Your task to perform on an android device: move a message to another label in the gmail app Image 0: 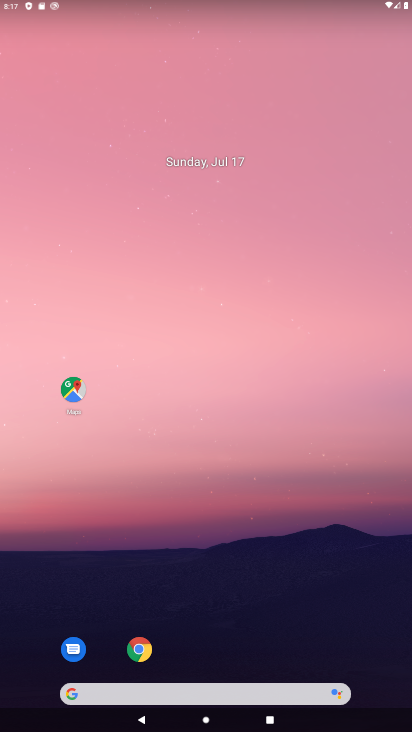
Step 0: drag from (209, 662) to (231, 217)
Your task to perform on an android device: move a message to another label in the gmail app Image 1: 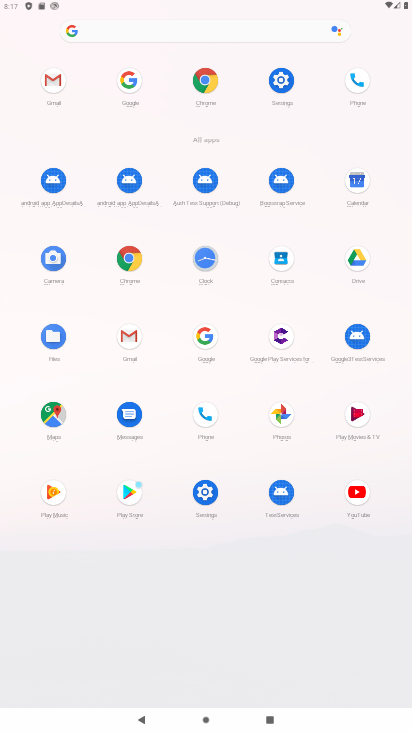
Step 1: click (128, 336)
Your task to perform on an android device: move a message to another label in the gmail app Image 2: 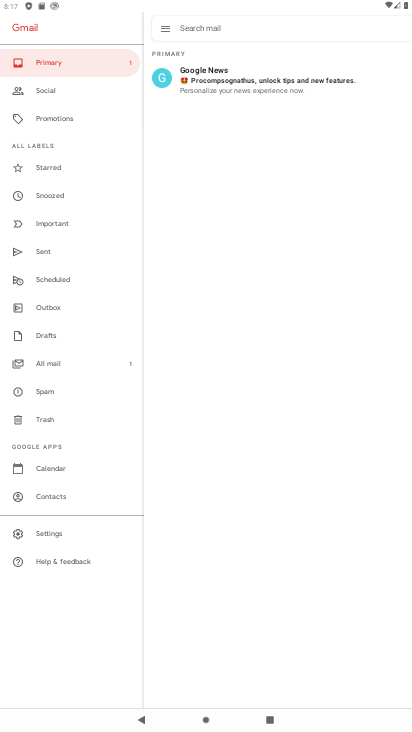
Step 2: click (220, 79)
Your task to perform on an android device: move a message to another label in the gmail app Image 3: 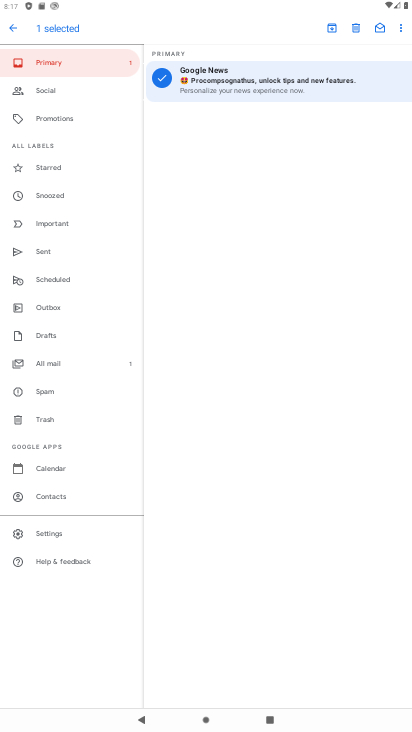
Step 3: click (400, 29)
Your task to perform on an android device: move a message to another label in the gmail app Image 4: 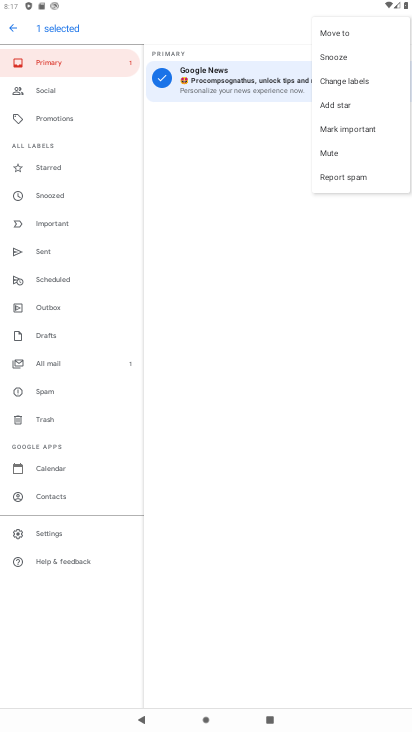
Step 4: click (353, 79)
Your task to perform on an android device: move a message to another label in the gmail app Image 5: 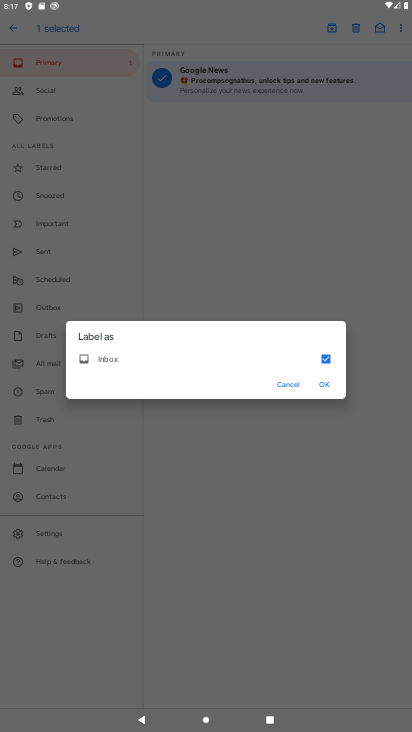
Step 5: click (325, 363)
Your task to perform on an android device: move a message to another label in the gmail app Image 6: 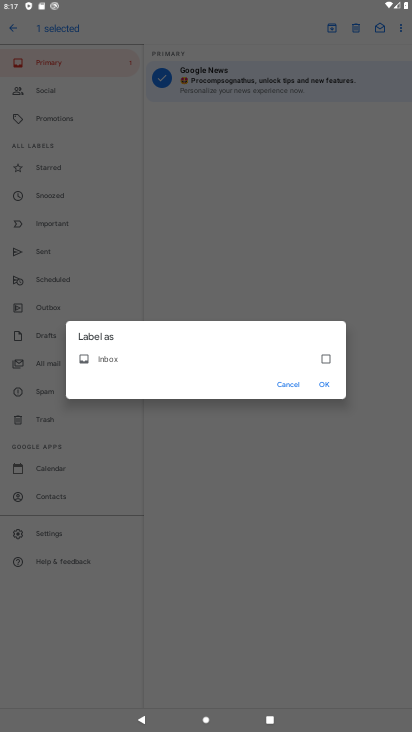
Step 6: click (325, 384)
Your task to perform on an android device: move a message to another label in the gmail app Image 7: 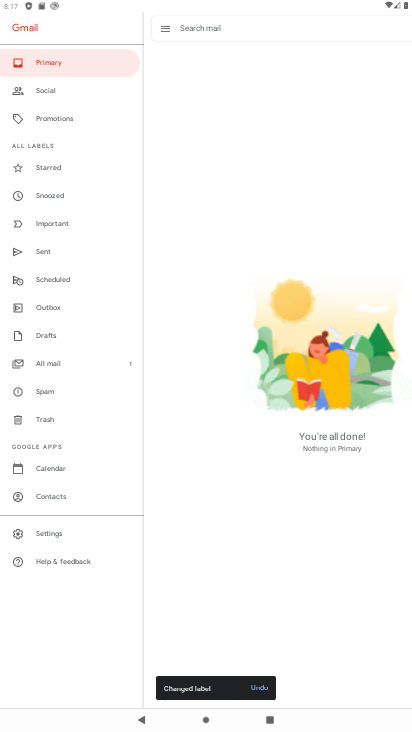
Step 7: task complete